Your task to perform on an android device: Open the stopwatch Image 0: 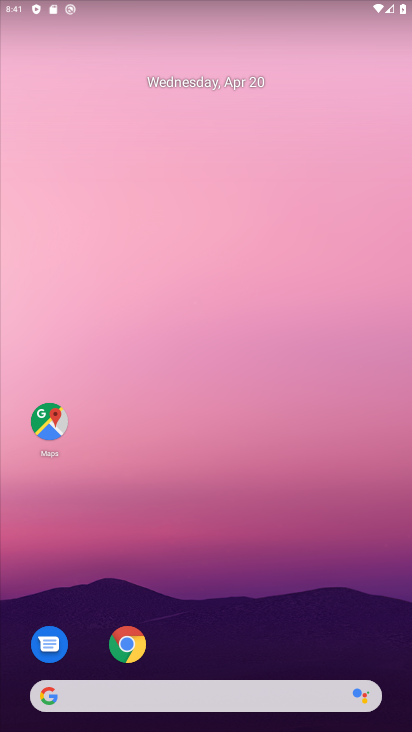
Step 0: drag from (219, 678) to (262, 312)
Your task to perform on an android device: Open the stopwatch Image 1: 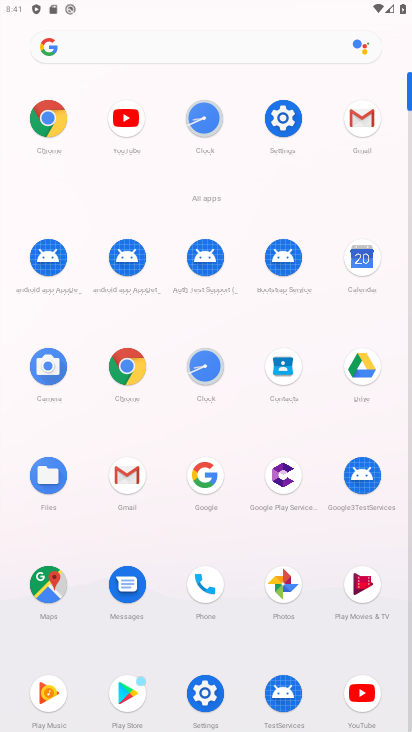
Step 1: click (214, 122)
Your task to perform on an android device: Open the stopwatch Image 2: 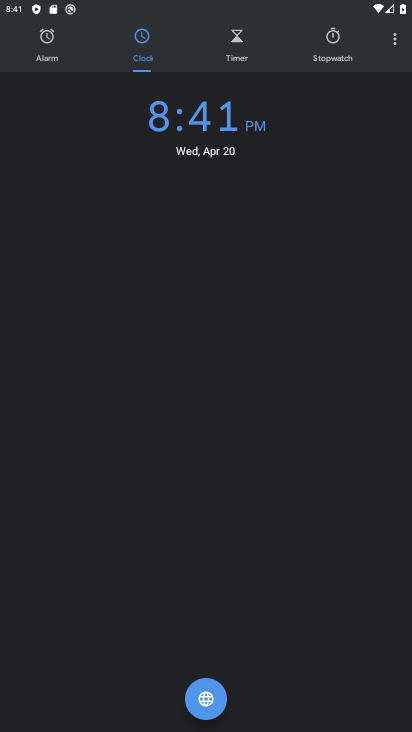
Step 2: click (336, 55)
Your task to perform on an android device: Open the stopwatch Image 3: 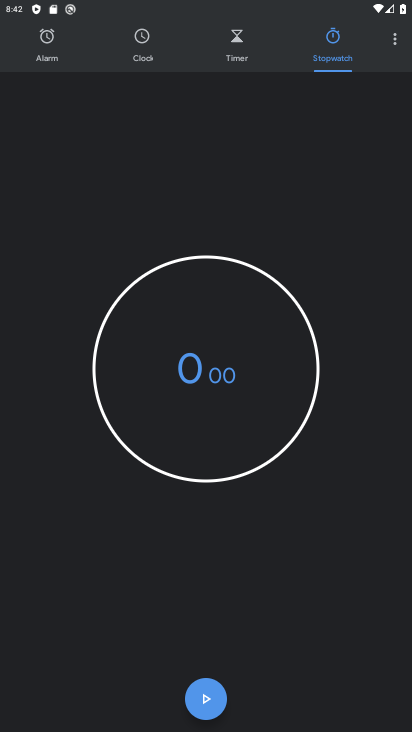
Step 3: task complete